Your task to perform on an android device: Open calendar and show me the third week of next month Image 0: 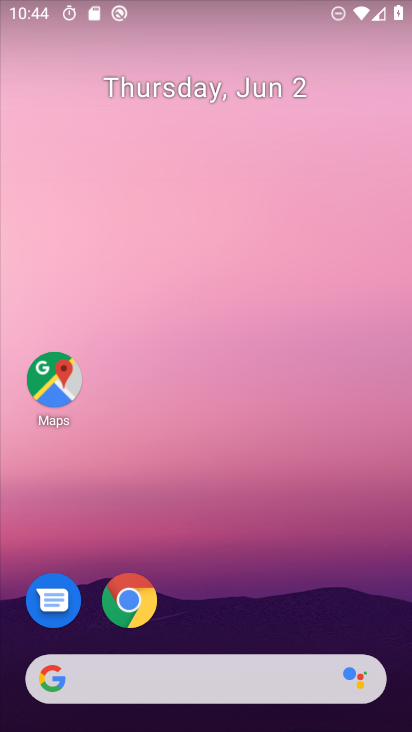
Step 0: drag from (223, 595) to (182, 56)
Your task to perform on an android device: Open calendar and show me the third week of next month Image 1: 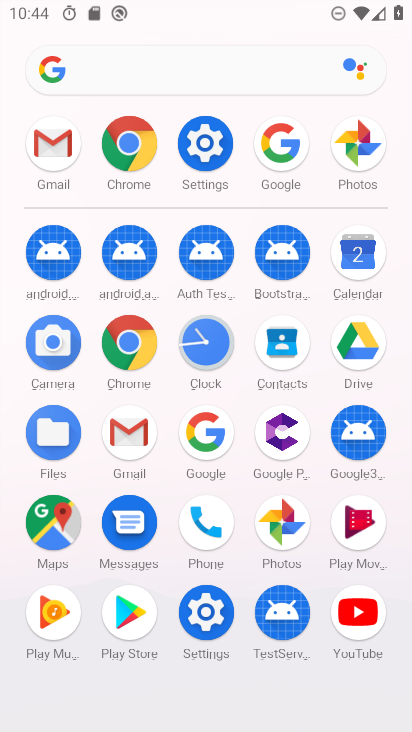
Step 1: click (359, 252)
Your task to perform on an android device: Open calendar and show me the third week of next month Image 2: 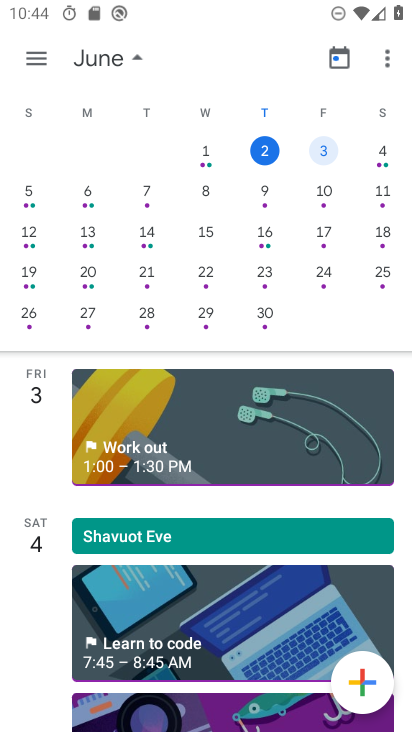
Step 2: drag from (390, 318) to (39, 314)
Your task to perform on an android device: Open calendar and show me the third week of next month Image 3: 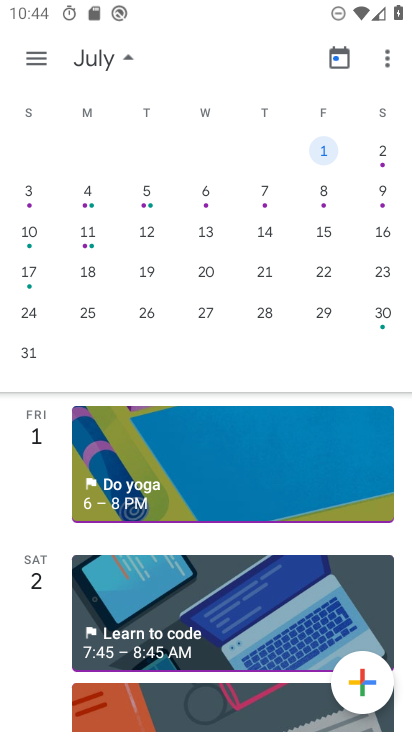
Step 3: click (139, 272)
Your task to perform on an android device: Open calendar and show me the third week of next month Image 4: 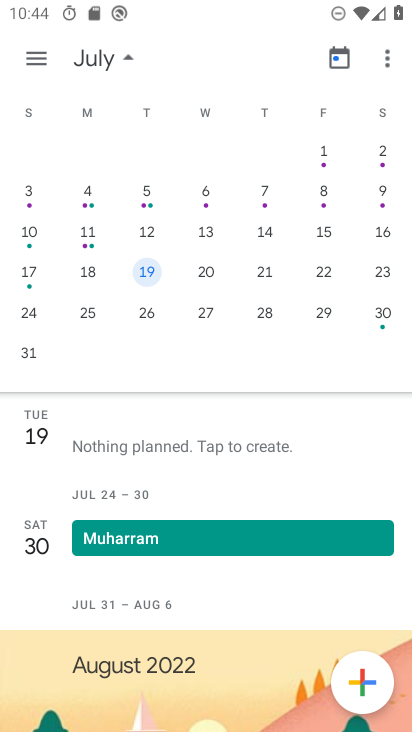
Step 4: task complete